Your task to perform on an android device: open a new tab in the chrome app Image 0: 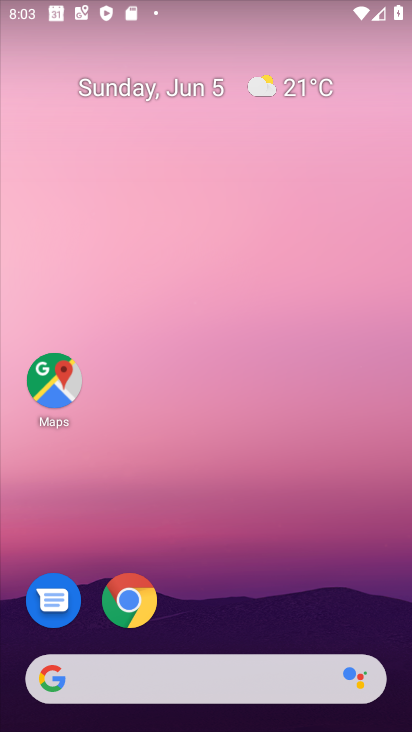
Step 0: click (139, 623)
Your task to perform on an android device: open a new tab in the chrome app Image 1: 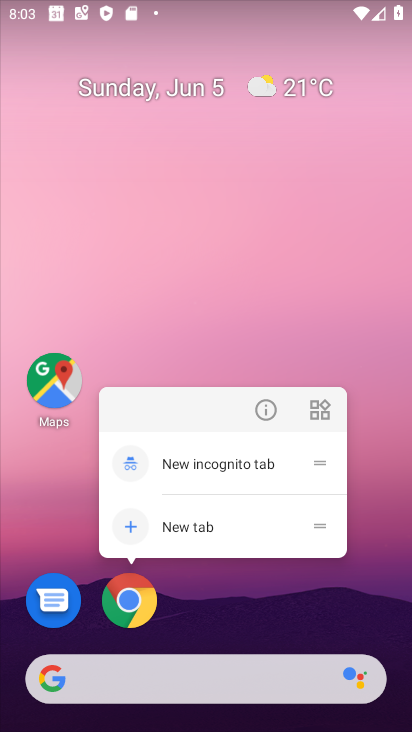
Step 1: click (131, 597)
Your task to perform on an android device: open a new tab in the chrome app Image 2: 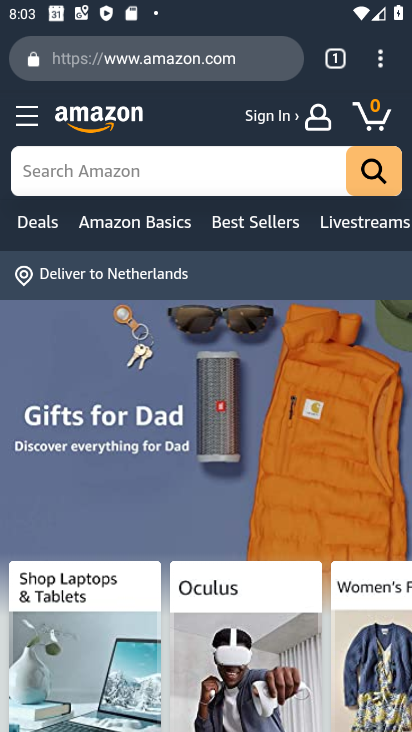
Step 2: click (378, 62)
Your task to perform on an android device: open a new tab in the chrome app Image 3: 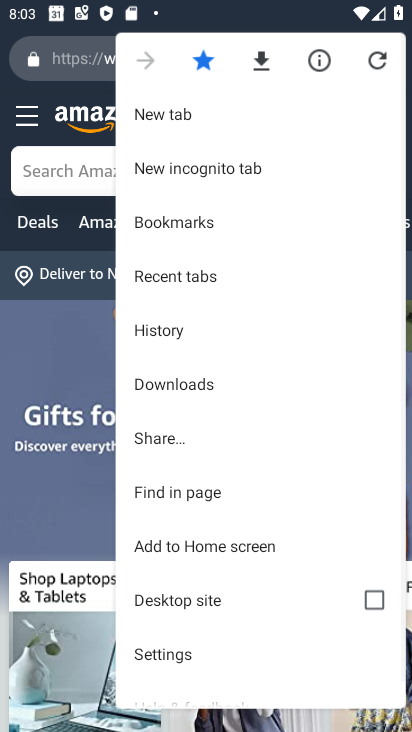
Step 3: click (180, 119)
Your task to perform on an android device: open a new tab in the chrome app Image 4: 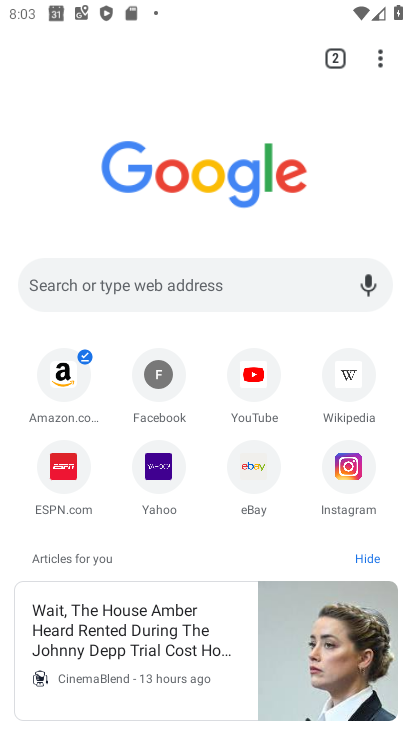
Step 4: task complete